Your task to perform on an android device: Go to notification settings Image 0: 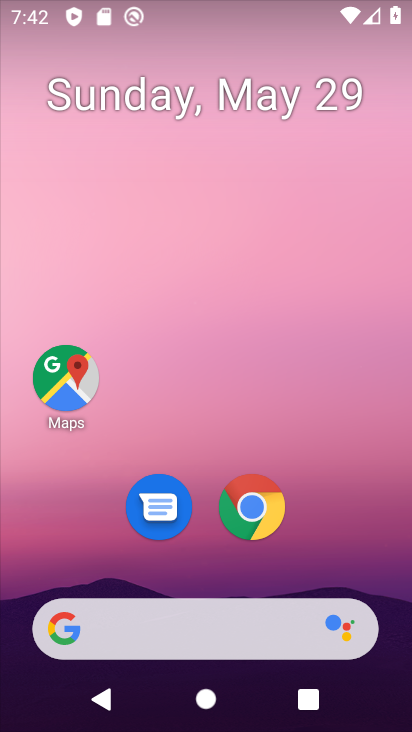
Step 0: click (320, 112)
Your task to perform on an android device: Go to notification settings Image 1: 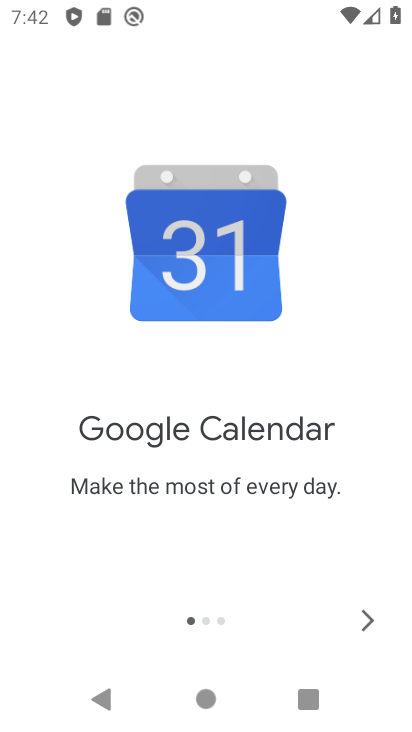
Step 1: press home button
Your task to perform on an android device: Go to notification settings Image 2: 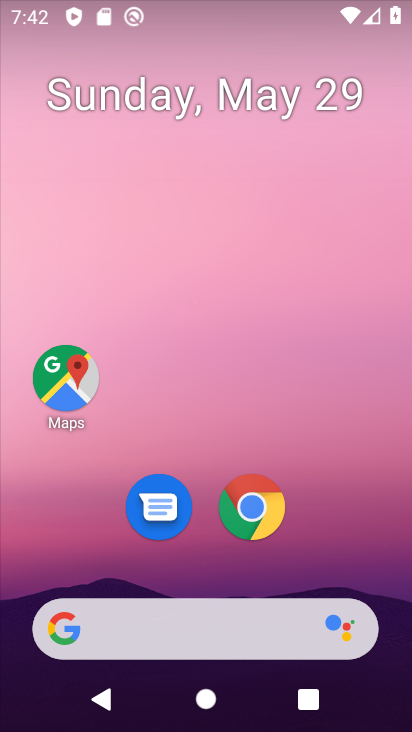
Step 2: drag from (328, 543) to (325, 175)
Your task to perform on an android device: Go to notification settings Image 3: 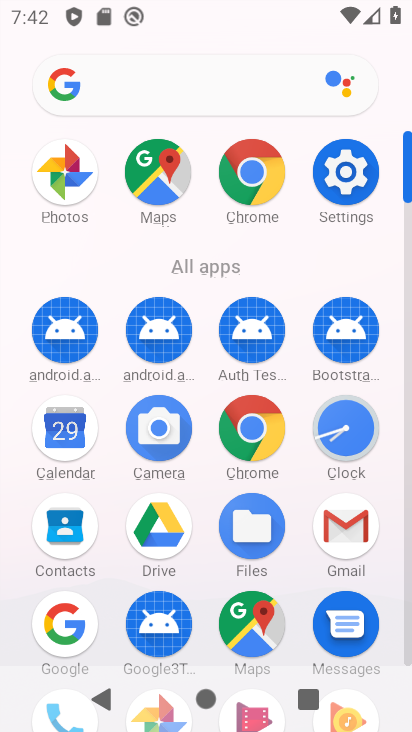
Step 3: click (338, 192)
Your task to perform on an android device: Go to notification settings Image 4: 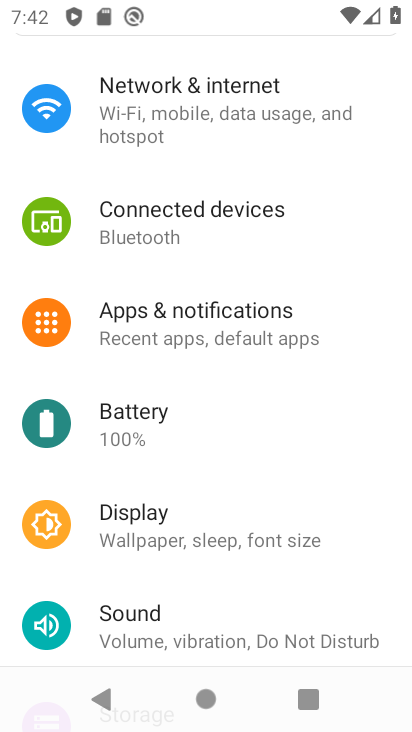
Step 4: drag from (290, 157) to (276, 436)
Your task to perform on an android device: Go to notification settings Image 5: 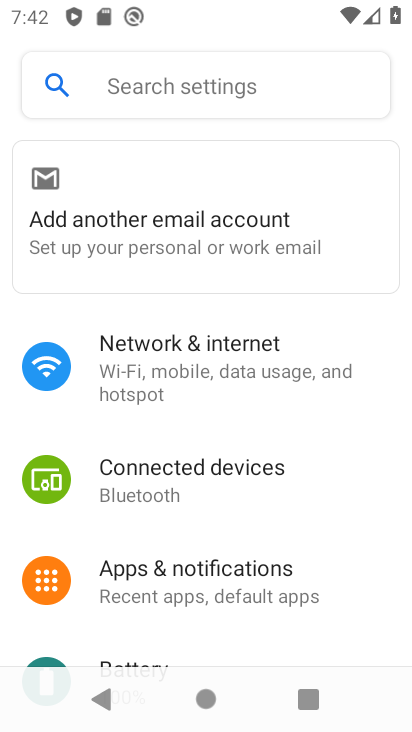
Step 5: click (176, 592)
Your task to perform on an android device: Go to notification settings Image 6: 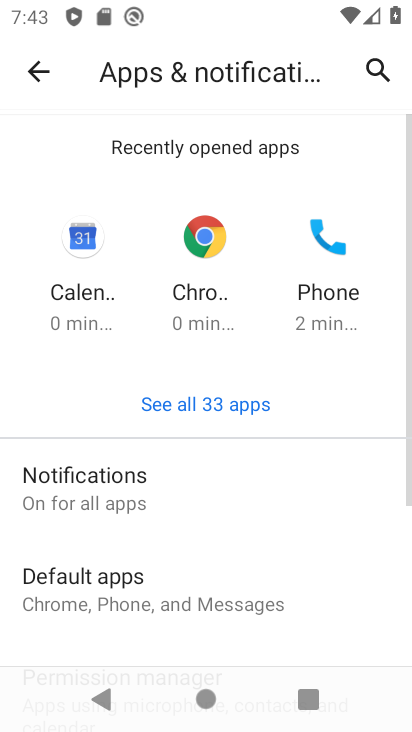
Step 6: click (129, 481)
Your task to perform on an android device: Go to notification settings Image 7: 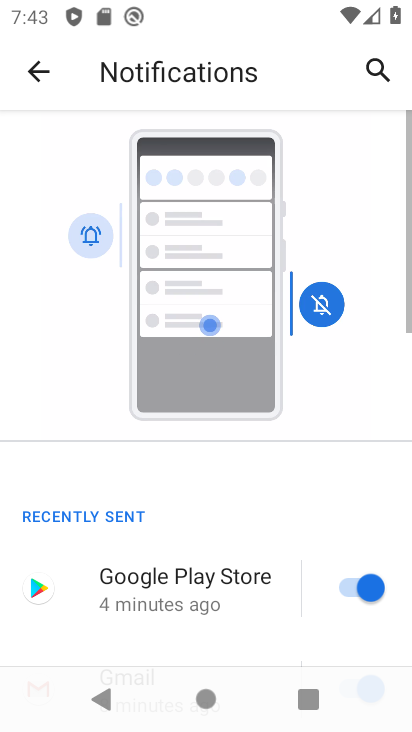
Step 7: task complete